Your task to perform on an android device: Turn off the flashlight Image 0: 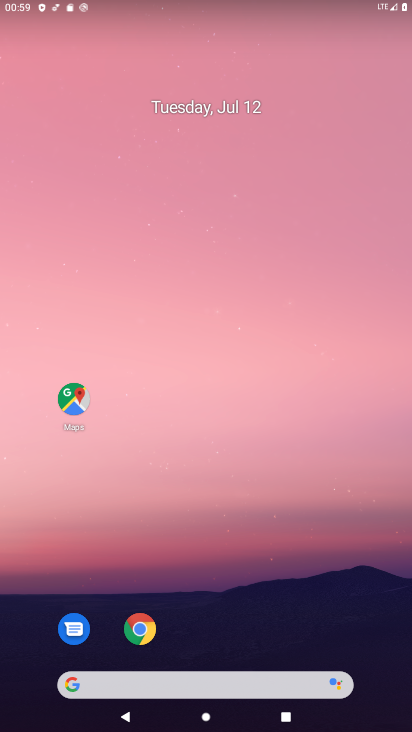
Step 0: drag from (152, 375) to (222, 184)
Your task to perform on an android device: Turn off the flashlight Image 1: 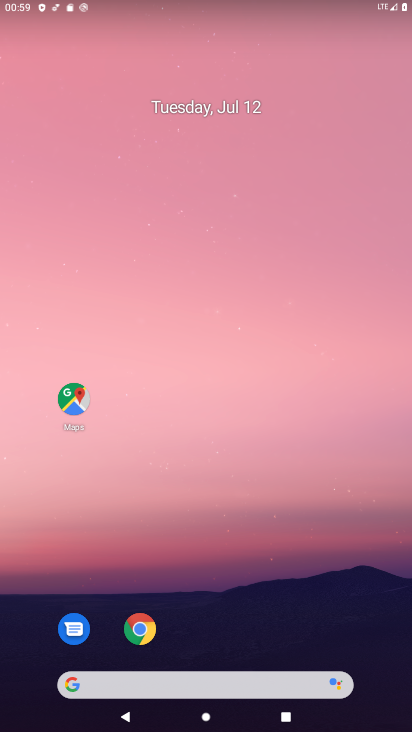
Step 1: drag from (80, 576) to (199, 250)
Your task to perform on an android device: Turn off the flashlight Image 2: 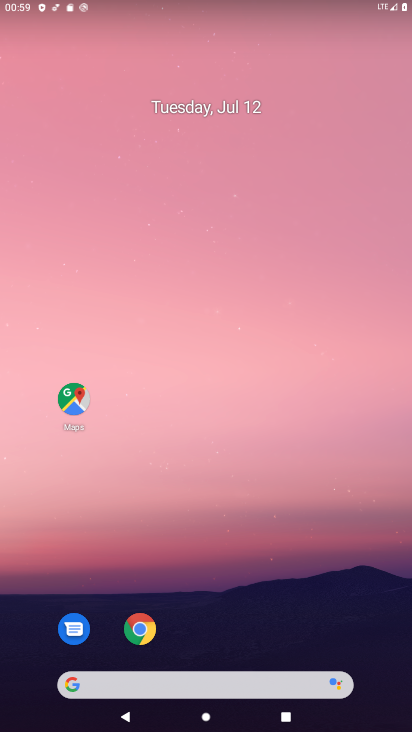
Step 2: drag from (32, 694) to (289, 23)
Your task to perform on an android device: Turn off the flashlight Image 3: 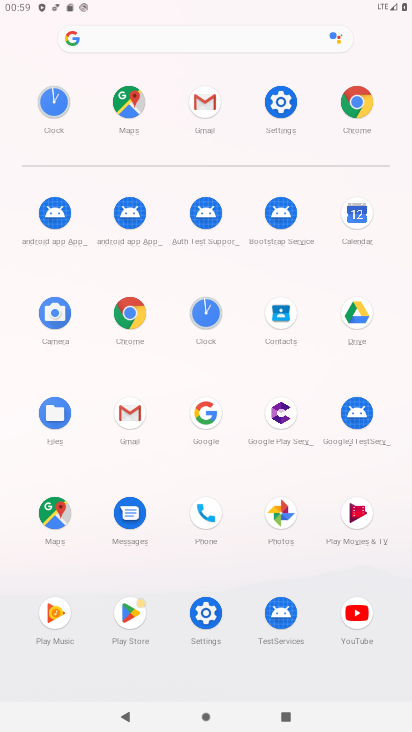
Step 3: click (209, 598)
Your task to perform on an android device: Turn off the flashlight Image 4: 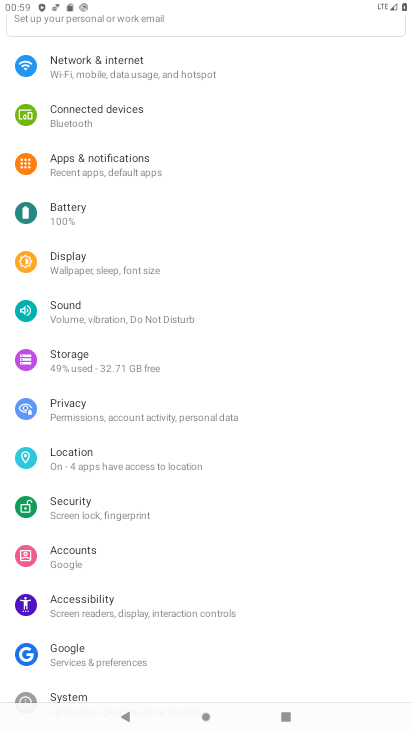
Step 4: drag from (211, 401) to (266, 151)
Your task to perform on an android device: Turn off the flashlight Image 5: 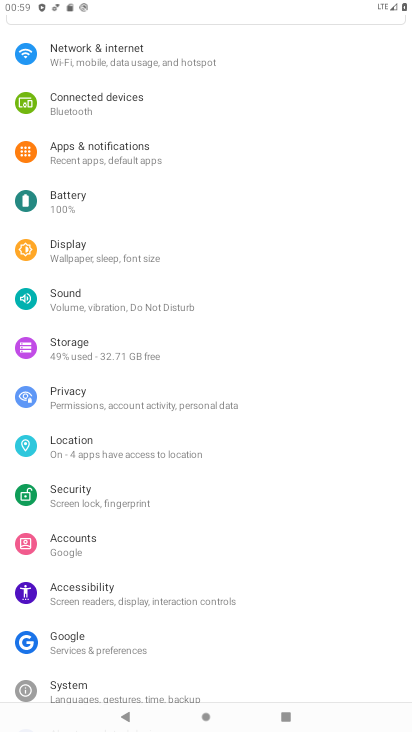
Step 5: click (146, 587)
Your task to perform on an android device: Turn off the flashlight Image 6: 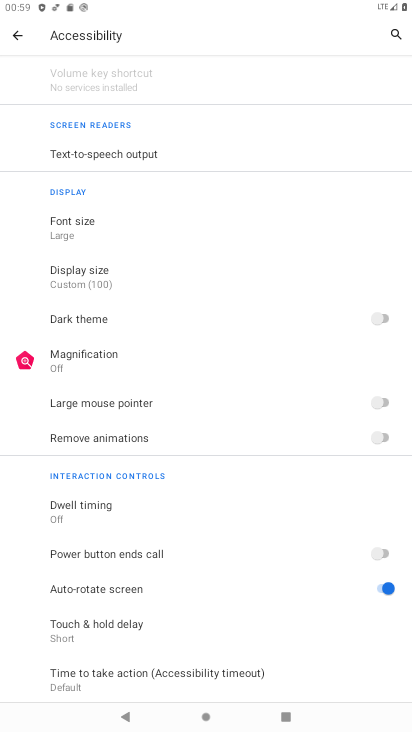
Step 6: drag from (202, 564) to (330, 192)
Your task to perform on an android device: Turn off the flashlight Image 7: 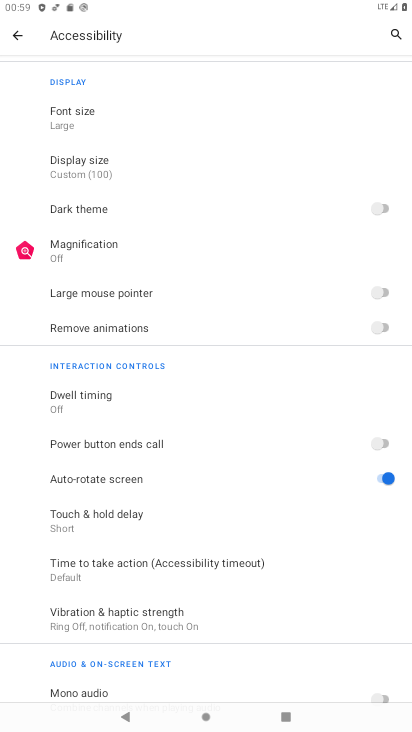
Step 7: drag from (219, 597) to (287, 219)
Your task to perform on an android device: Turn off the flashlight Image 8: 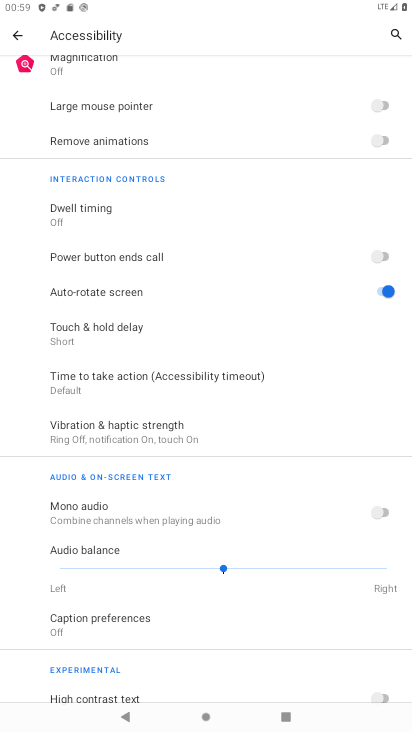
Step 8: click (129, 427)
Your task to perform on an android device: Turn off the flashlight Image 9: 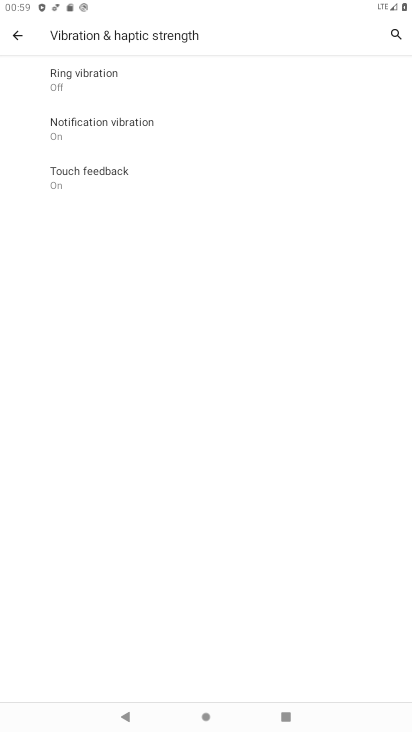
Step 9: click (20, 36)
Your task to perform on an android device: Turn off the flashlight Image 10: 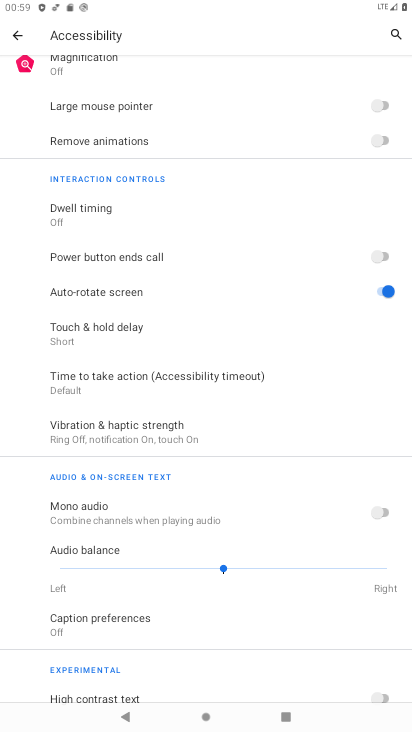
Step 10: click (108, 404)
Your task to perform on an android device: Turn off the flashlight Image 11: 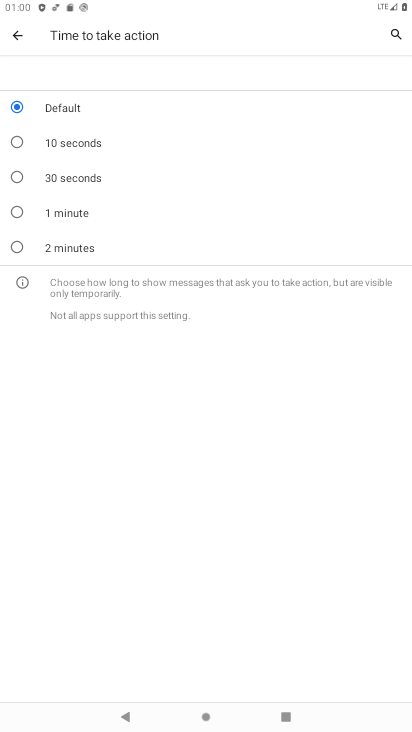
Step 11: click (18, 33)
Your task to perform on an android device: Turn off the flashlight Image 12: 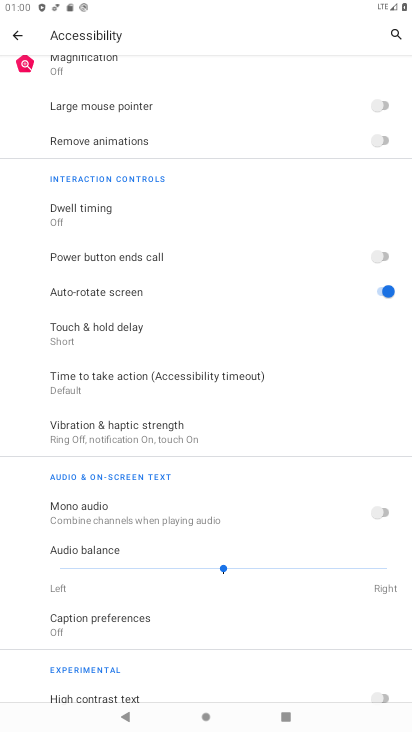
Step 12: click (114, 421)
Your task to perform on an android device: Turn off the flashlight Image 13: 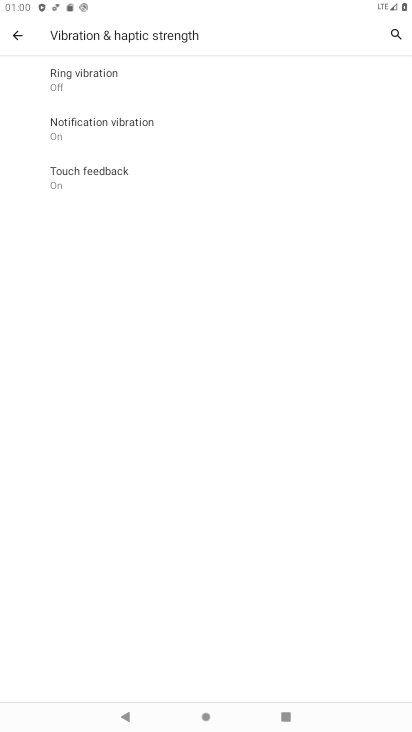
Step 13: click (16, 38)
Your task to perform on an android device: Turn off the flashlight Image 14: 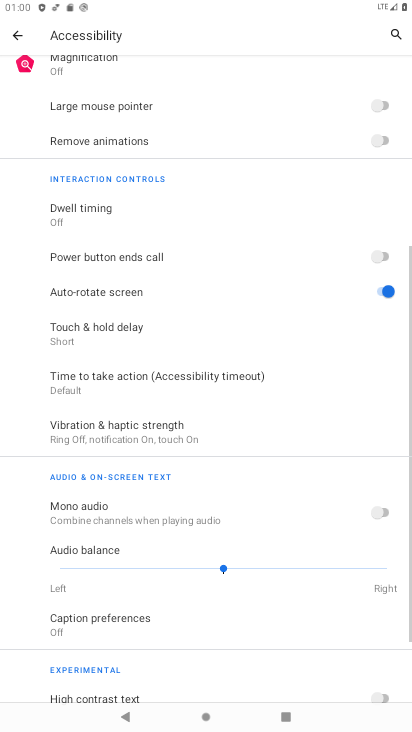
Step 14: click (16, 38)
Your task to perform on an android device: Turn off the flashlight Image 15: 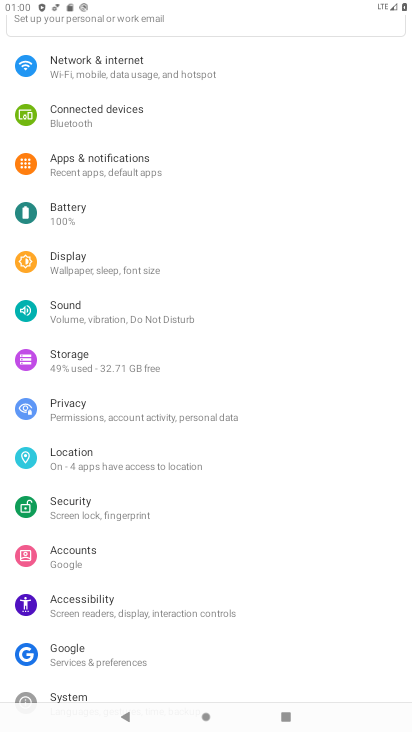
Step 15: task complete